Your task to perform on an android device: toggle data saver in the chrome app Image 0: 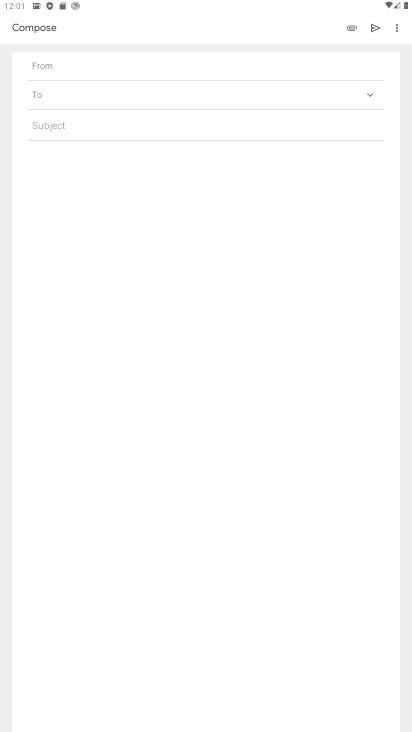
Step 0: drag from (364, 634) to (403, 340)
Your task to perform on an android device: toggle data saver in the chrome app Image 1: 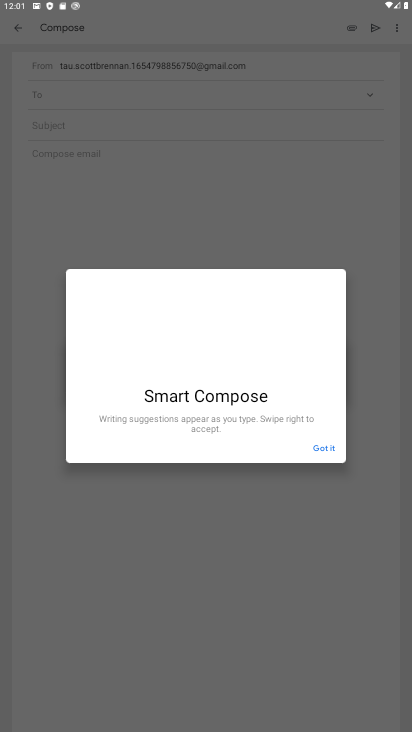
Step 1: press home button
Your task to perform on an android device: toggle data saver in the chrome app Image 2: 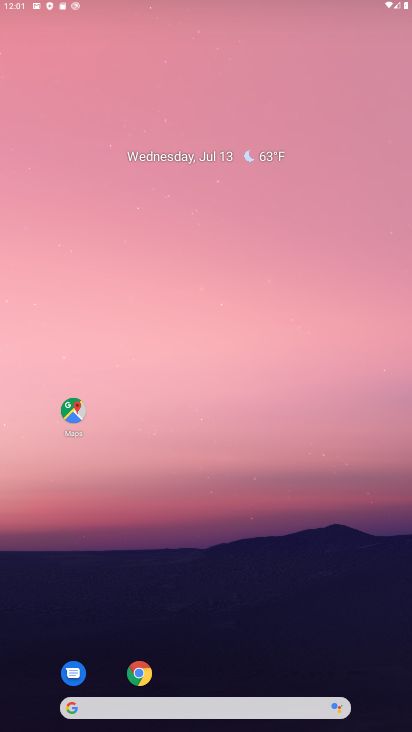
Step 2: drag from (275, 576) to (267, 0)
Your task to perform on an android device: toggle data saver in the chrome app Image 3: 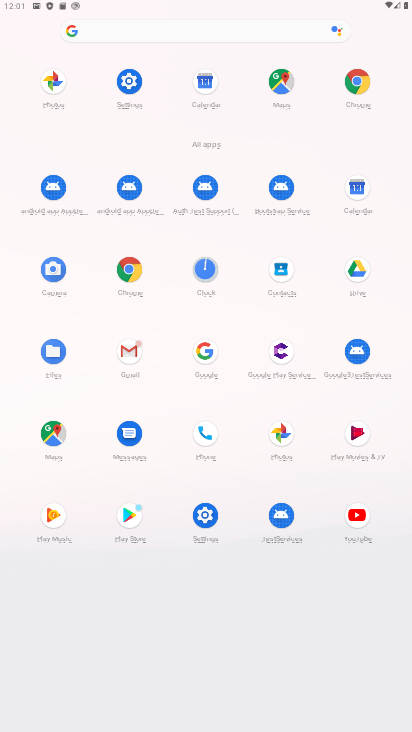
Step 3: click (351, 91)
Your task to perform on an android device: toggle data saver in the chrome app Image 4: 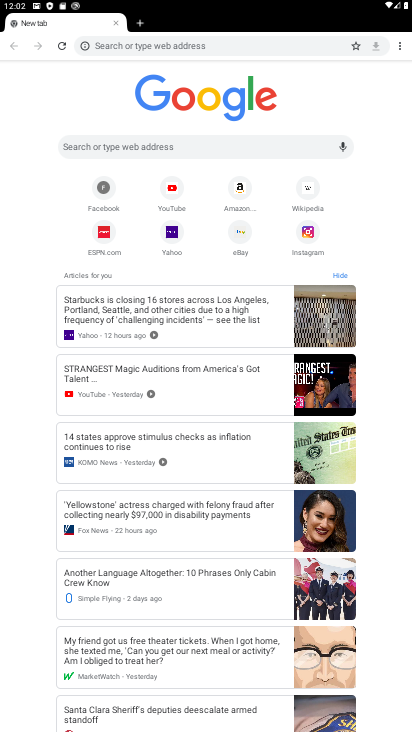
Step 4: click (400, 42)
Your task to perform on an android device: toggle data saver in the chrome app Image 5: 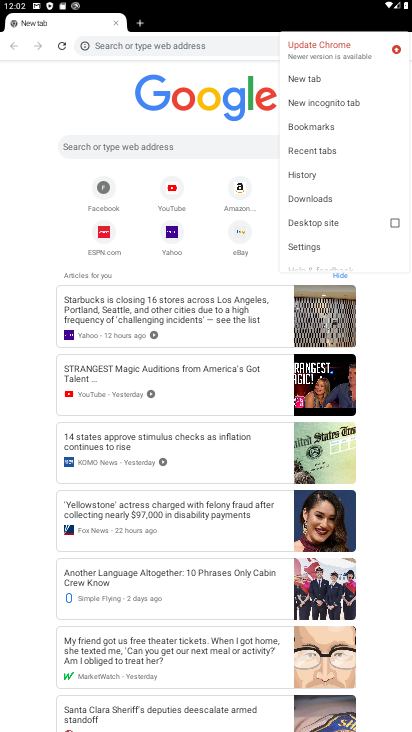
Step 5: click (306, 244)
Your task to perform on an android device: toggle data saver in the chrome app Image 6: 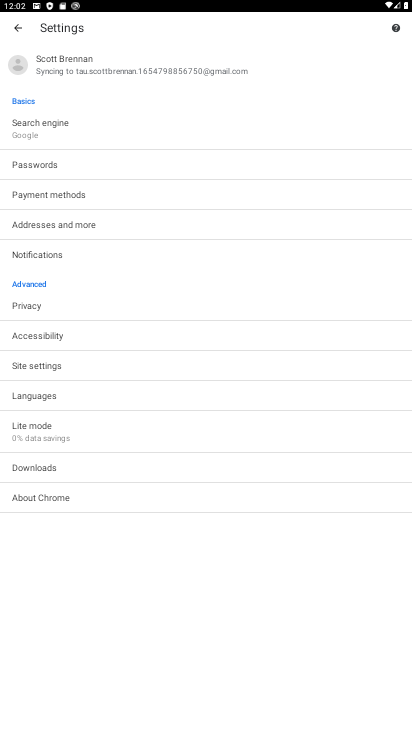
Step 6: click (154, 420)
Your task to perform on an android device: toggle data saver in the chrome app Image 7: 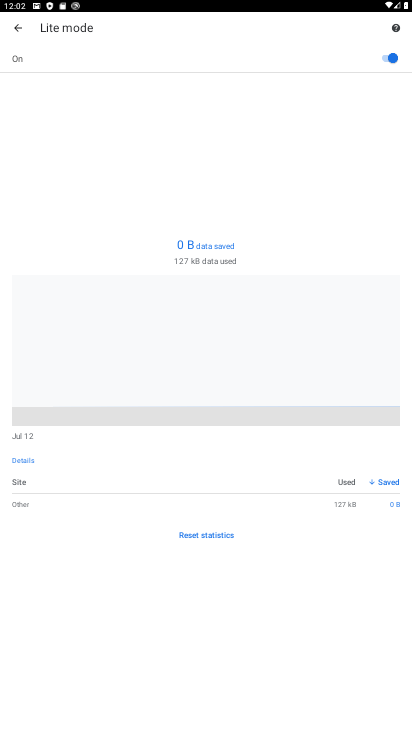
Step 7: click (370, 59)
Your task to perform on an android device: toggle data saver in the chrome app Image 8: 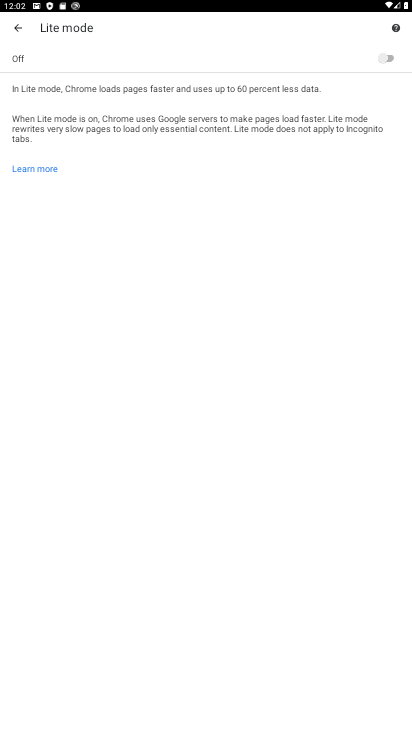
Step 8: task complete